Your task to perform on an android device: toggle data saver in the chrome app Image 0: 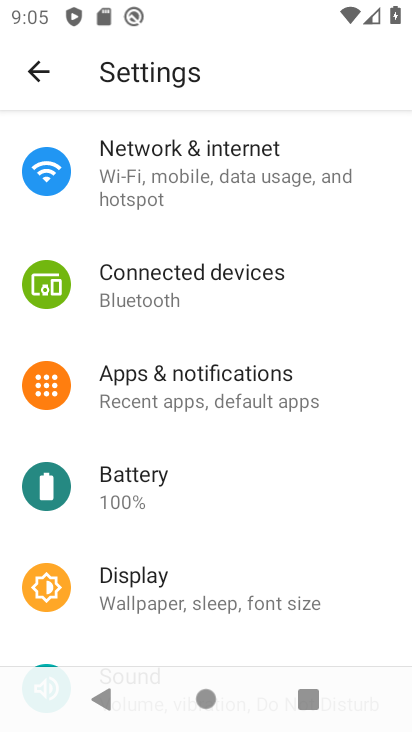
Step 0: press home button
Your task to perform on an android device: toggle data saver in the chrome app Image 1: 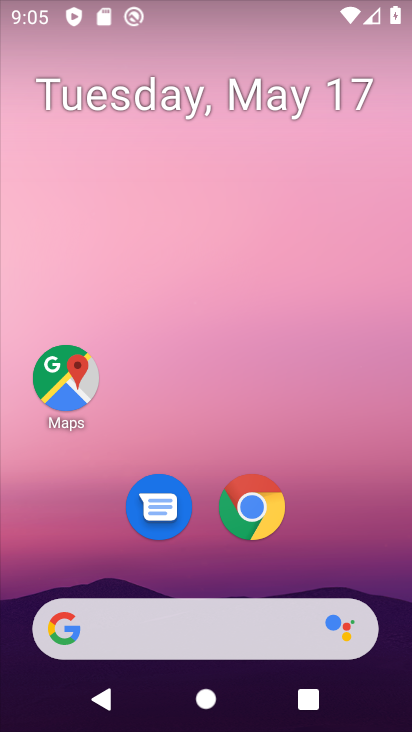
Step 1: drag from (292, 580) to (177, 68)
Your task to perform on an android device: toggle data saver in the chrome app Image 2: 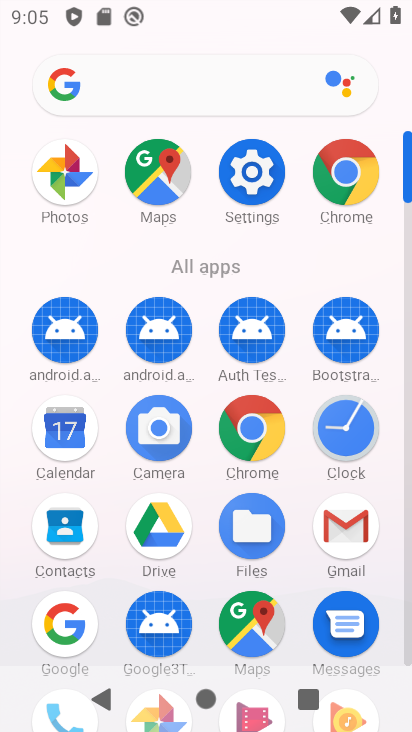
Step 2: click (344, 183)
Your task to perform on an android device: toggle data saver in the chrome app Image 3: 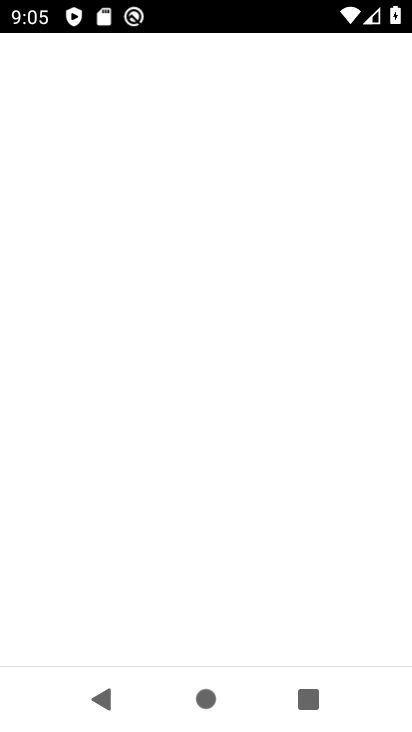
Step 3: click (350, 176)
Your task to perform on an android device: toggle data saver in the chrome app Image 4: 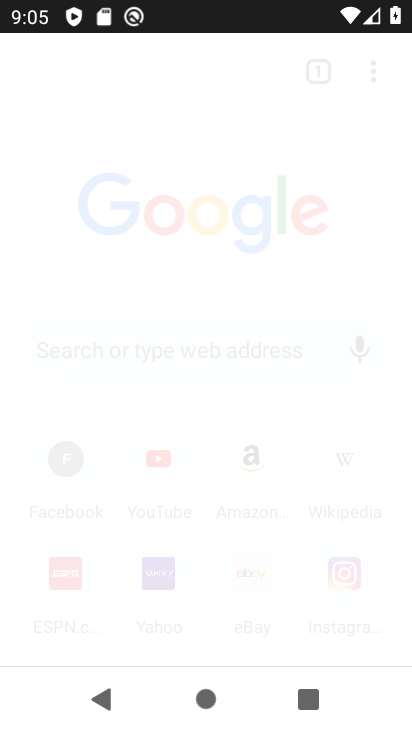
Step 4: click (352, 171)
Your task to perform on an android device: toggle data saver in the chrome app Image 5: 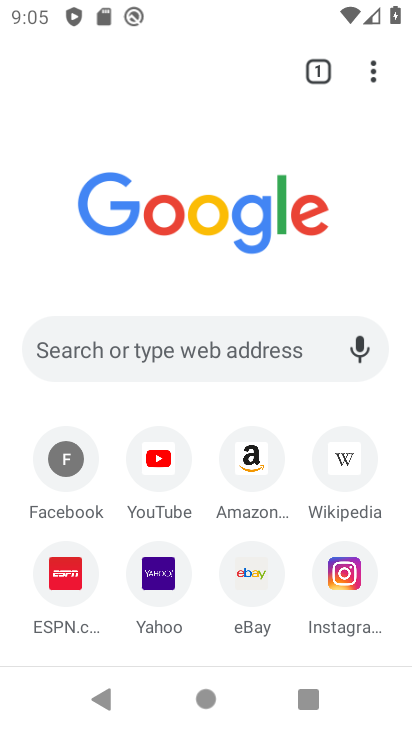
Step 5: click (369, 72)
Your task to perform on an android device: toggle data saver in the chrome app Image 6: 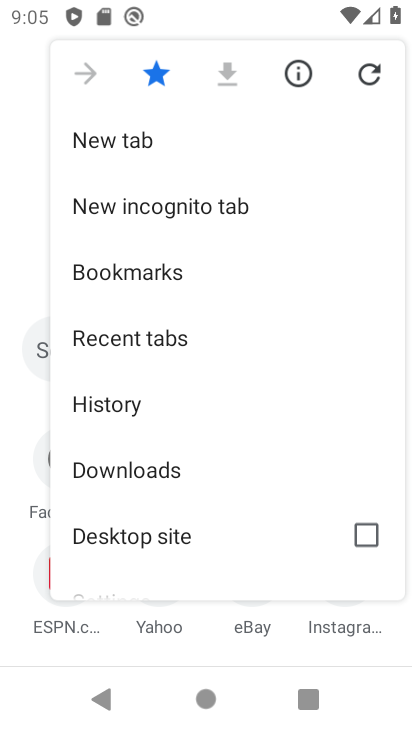
Step 6: drag from (130, 501) to (134, 154)
Your task to perform on an android device: toggle data saver in the chrome app Image 7: 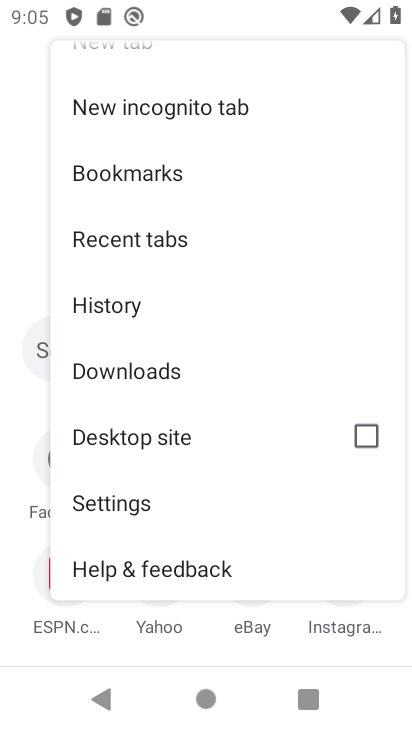
Step 7: drag from (131, 467) to (96, 114)
Your task to perform on an android device: toggle data saver in the chrome app Image 8: 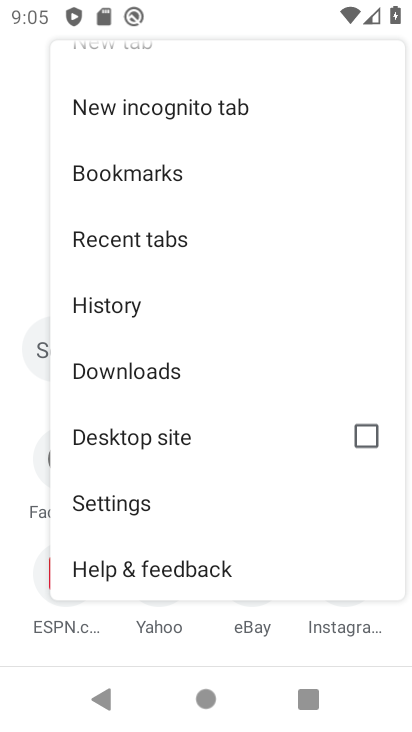
Step 8: click (115, 500)
Your task to perform on an android device: toggle data saver in the chrome app Image 9: 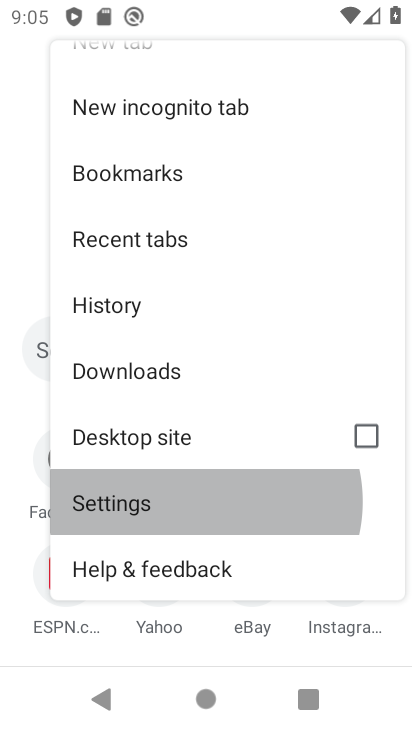
Step 9: click (114, 501)
Your task to perform on an android device: toggle data saver in the chrome app Image 10: 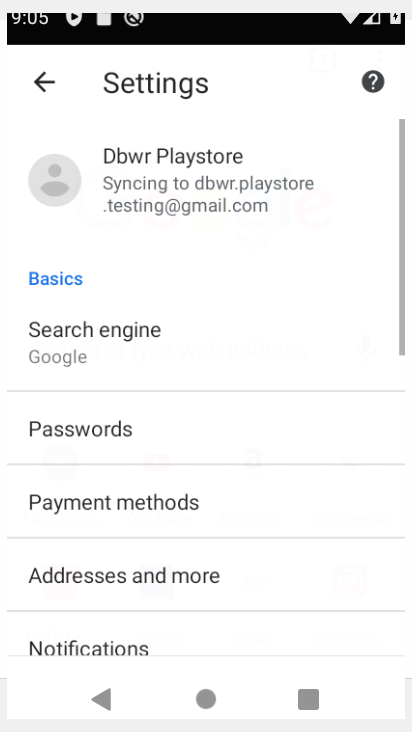
Step 10: click (114, 501)
Your task to perform on an android device: toggle data saver in the chrome app Image 11: 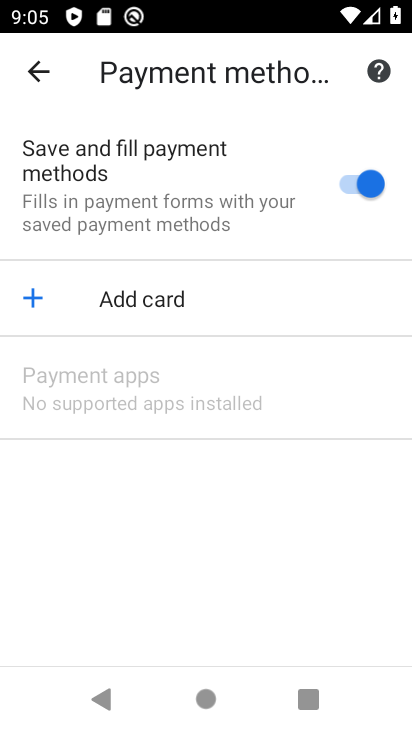
Step 11: click (44, 70)
Your task to perform on an android device: toggle data saver in the chrome app Image 12: 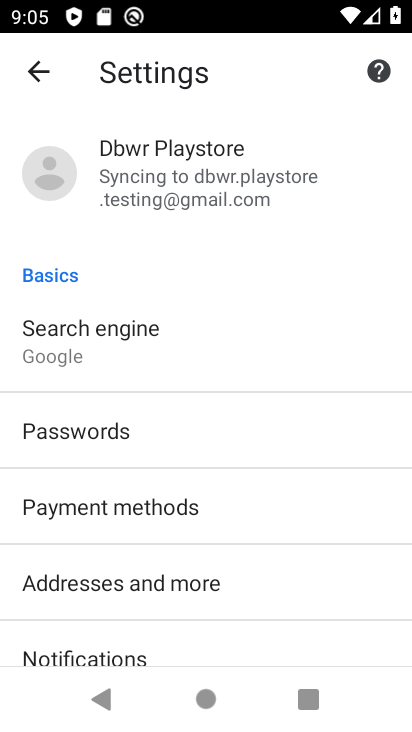
Step 12: drag from (145, 498) to (145, 142)
Your task to perform on an android device: toggle data saver in the chrome app Image 13: 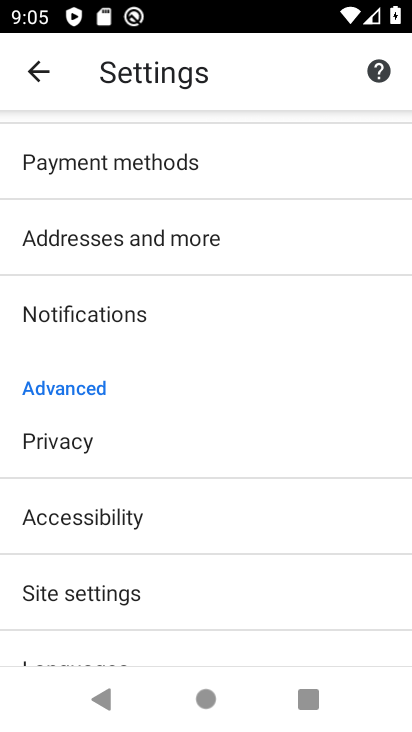
Step 13: click (76, 584)
Your task to perform on an android device: toggle data saver in the chrome app Image 14: 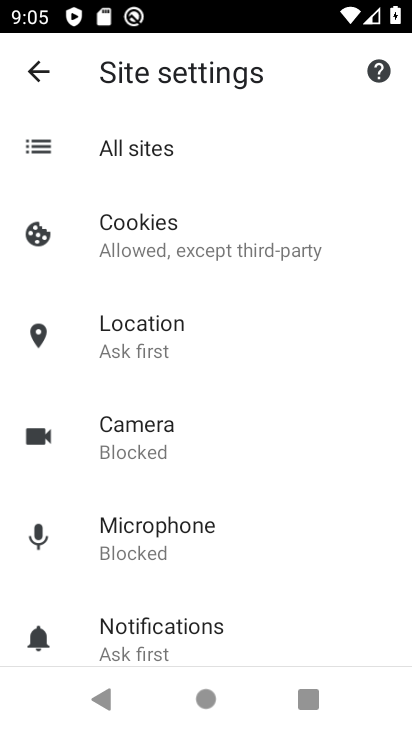
Step 14: click (26, 81)
Your task to perform on an android device: toggle data saver in the chrome app Image 15: 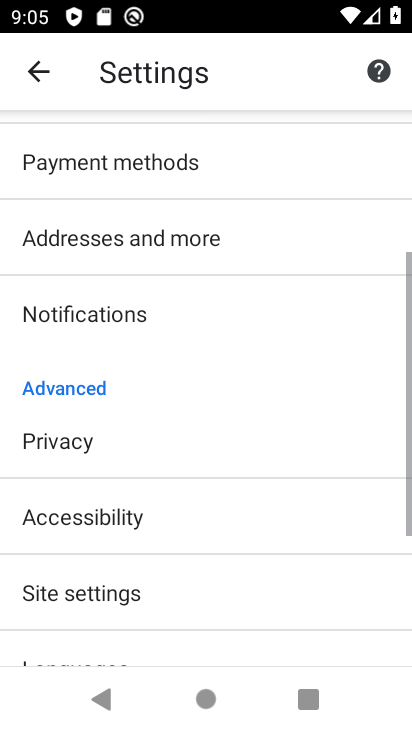
Step 15: drag from (136, 536) to (160, 223)
Your task to perform on an android device: toggle data saver in the chrome app Image 16: 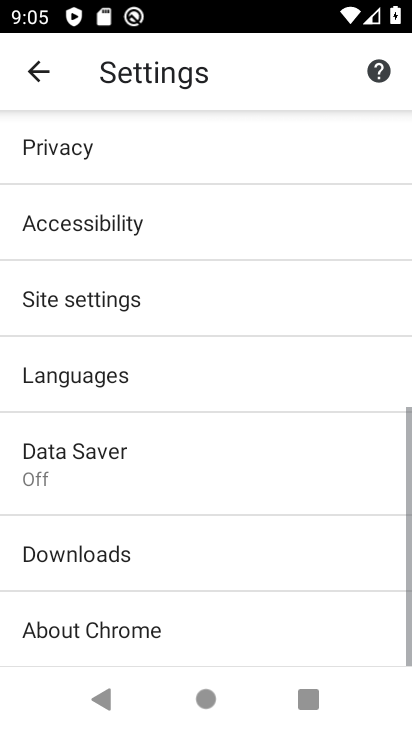
Step 16: click (65, 448)
Your task to perform on an android device: toggle data saver in the chrome app Image 17: 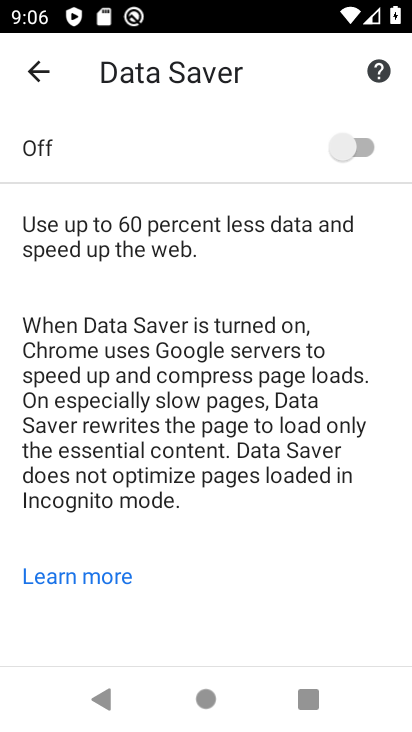
Step 17: task complete